Your task to perform on an android device: What's the weather today? Image 0: 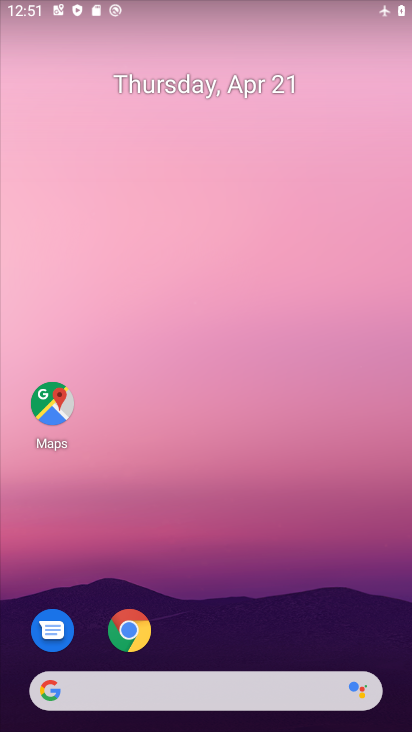
Step 0: drag from (226, 344) to (209, 75)
Your task to perform on an android device: What's the weather today? Image 1: 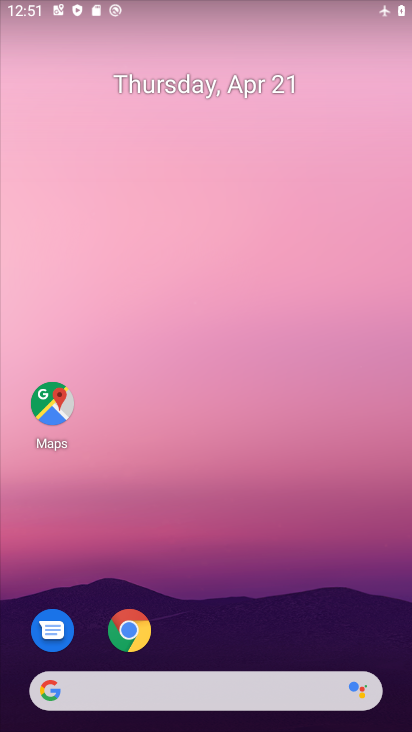
Step 1: drag from (266, 608) to (231, 1)
Your task to perform on an android device: What's the weather today? Image 2: 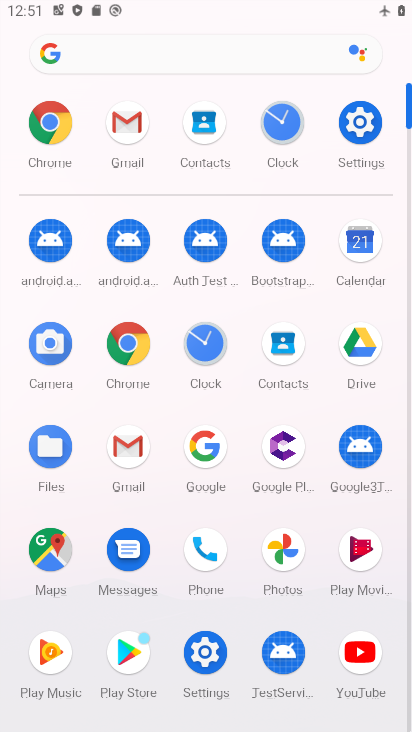
Step 2: click (354, 130)
Your task to perform on an android device: What's the weather today? Image 3: 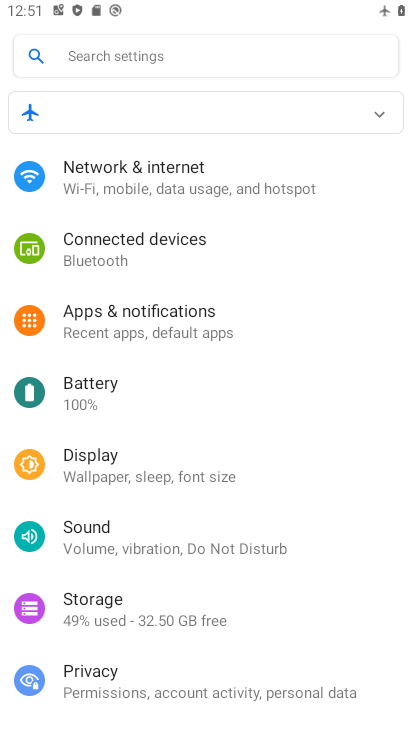
Step 3: click (325, 187)
Your task to perform on an android device: What's the weather today? Image 4: 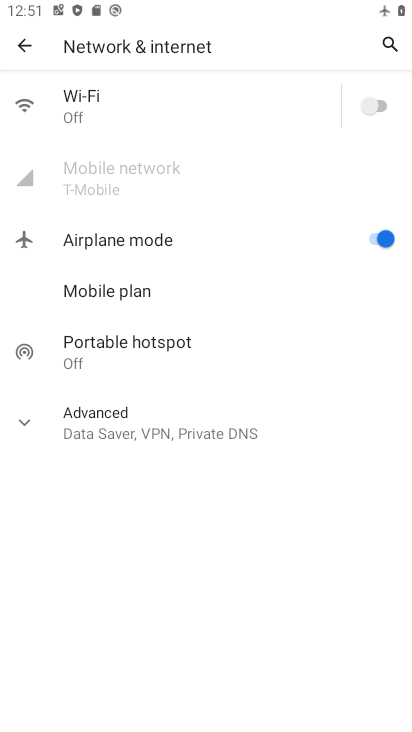
Step 4: click (375, 118)
Your task to perform on an android device: What's the weather today? Image 5: 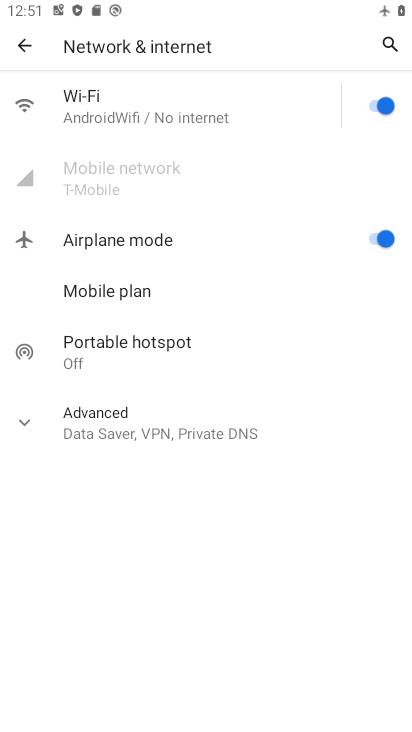
Step 5: click (375, 243)
Your task to perform on an android device: What's the weather today? Image 6: 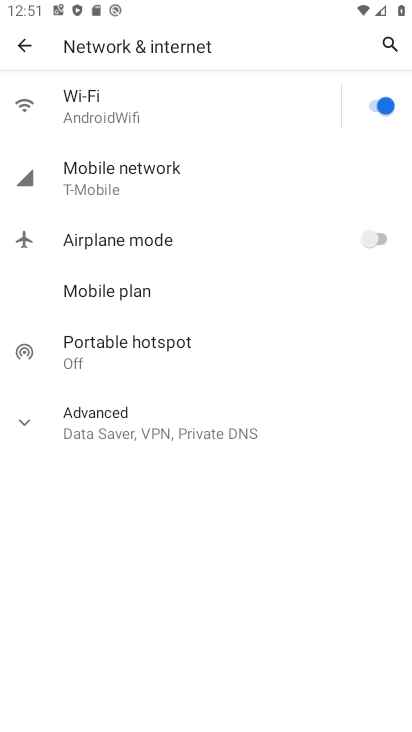
Step 6: press home button
Your task to perform on an android device: What's the weather today? Image 7: 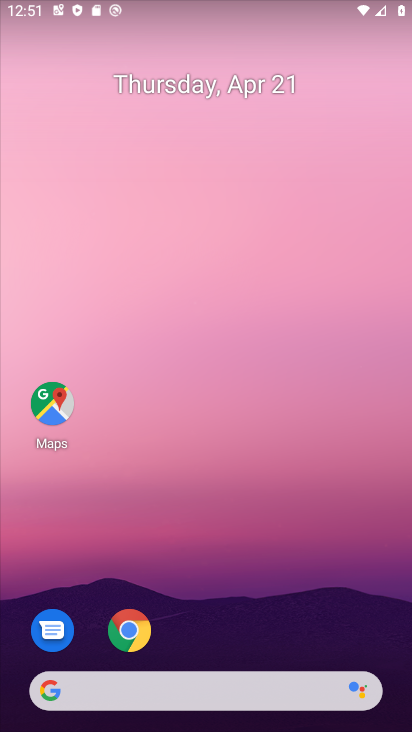
Step 7: drag from (319, 586) to (248, 135)
Your task to perform on an android device: What's the weather today? Image 8: 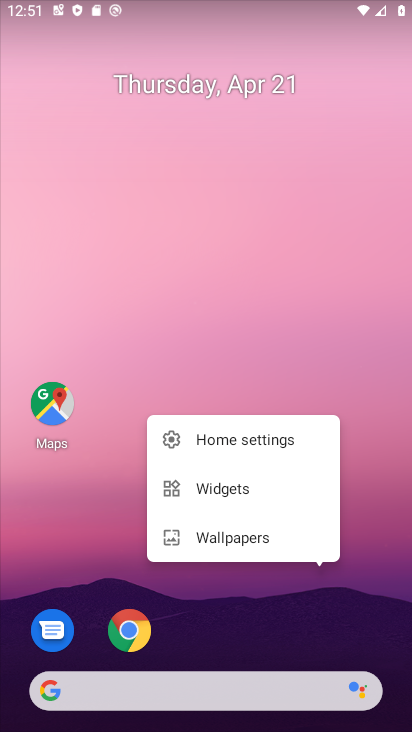
Step 8: click (285, 274)
Your task to perform on an android device: What's the weather today? Image 9: 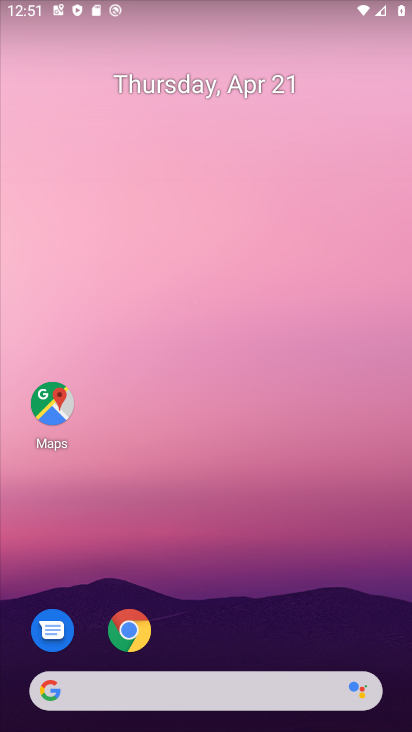
Step 9: drag from (262, 624) to (232, 171)
Your task to perform on an android device: What's the weather today? Image 10: 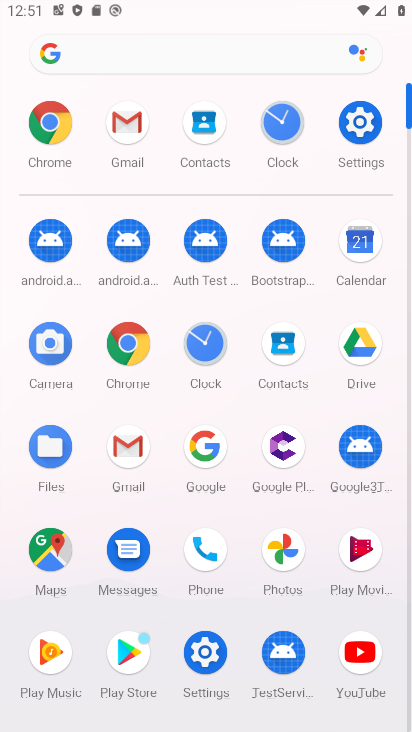
Step 10: click (152, 49)
Your task to perform on an android device: What's the weather today? Image 11: 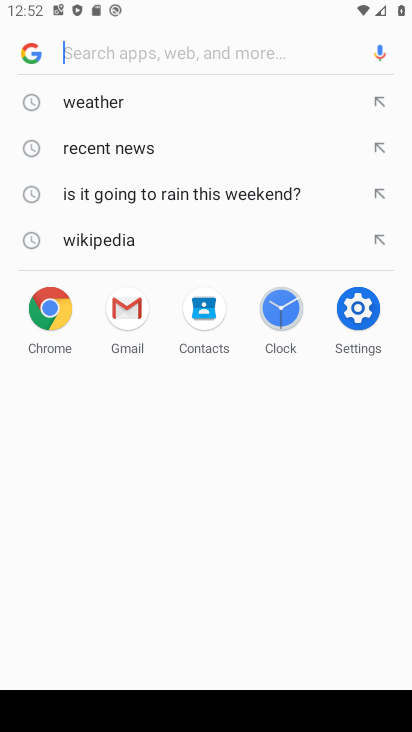
Step 11: click (159, 98)
Your task to perform on an android device: What's the weather today? Image 12: 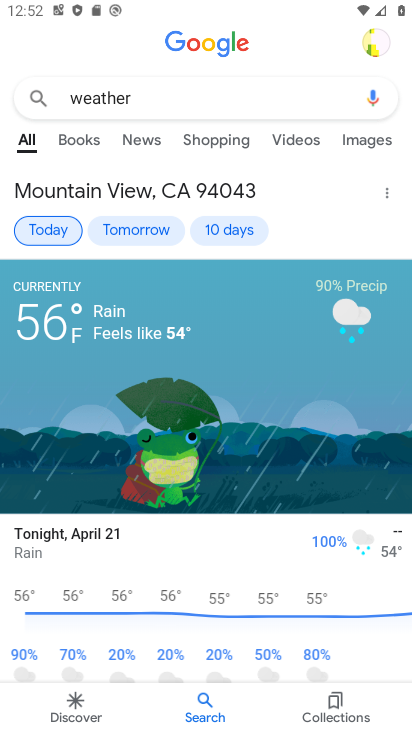
Step 12: task complete